Your task to perform on an android device: turn off airplane mode Image 0: 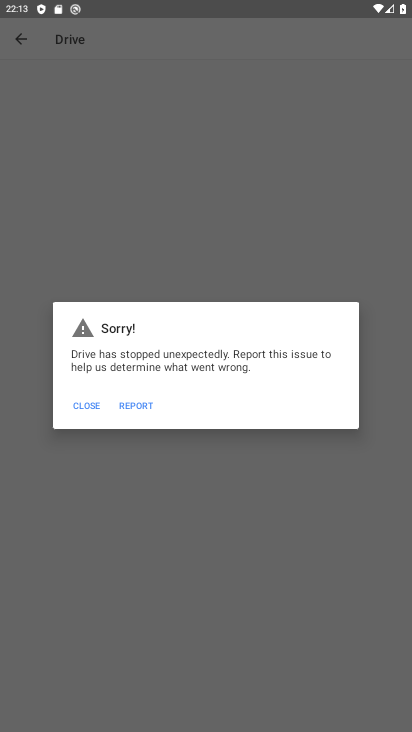
Step 0: drag from (317, 14) to (301, 623)
Your task to perform on an android device: turn off airplane mode Image 1: 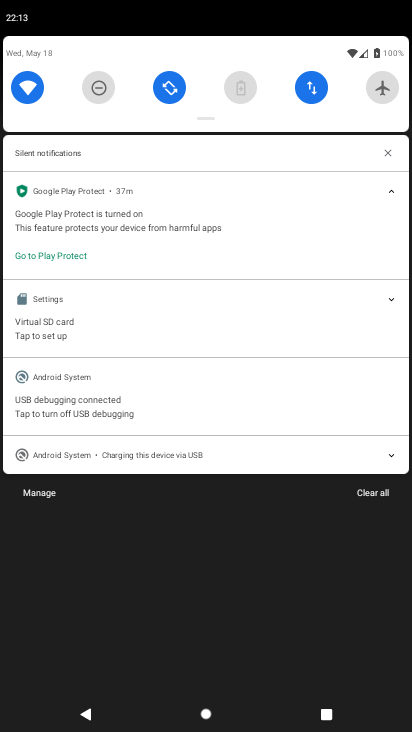
Step 1: click (383, 83)
Your task to perform on an android device: turn off airplane mode Image 2: 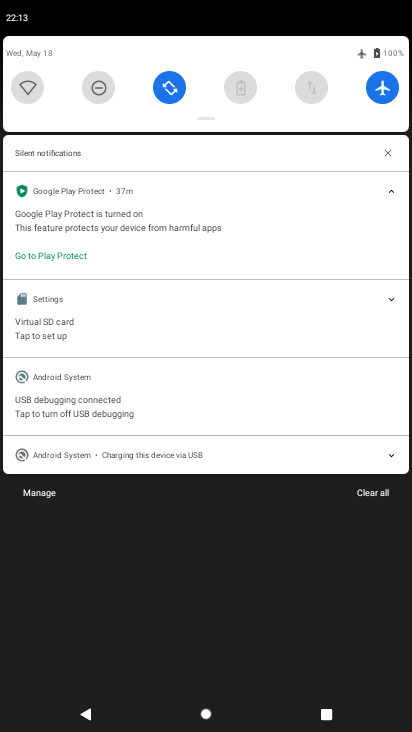
Step 2: task complete